Your task to perform on an android device: Open Youtube and go to the subscriptions tab Image 0: 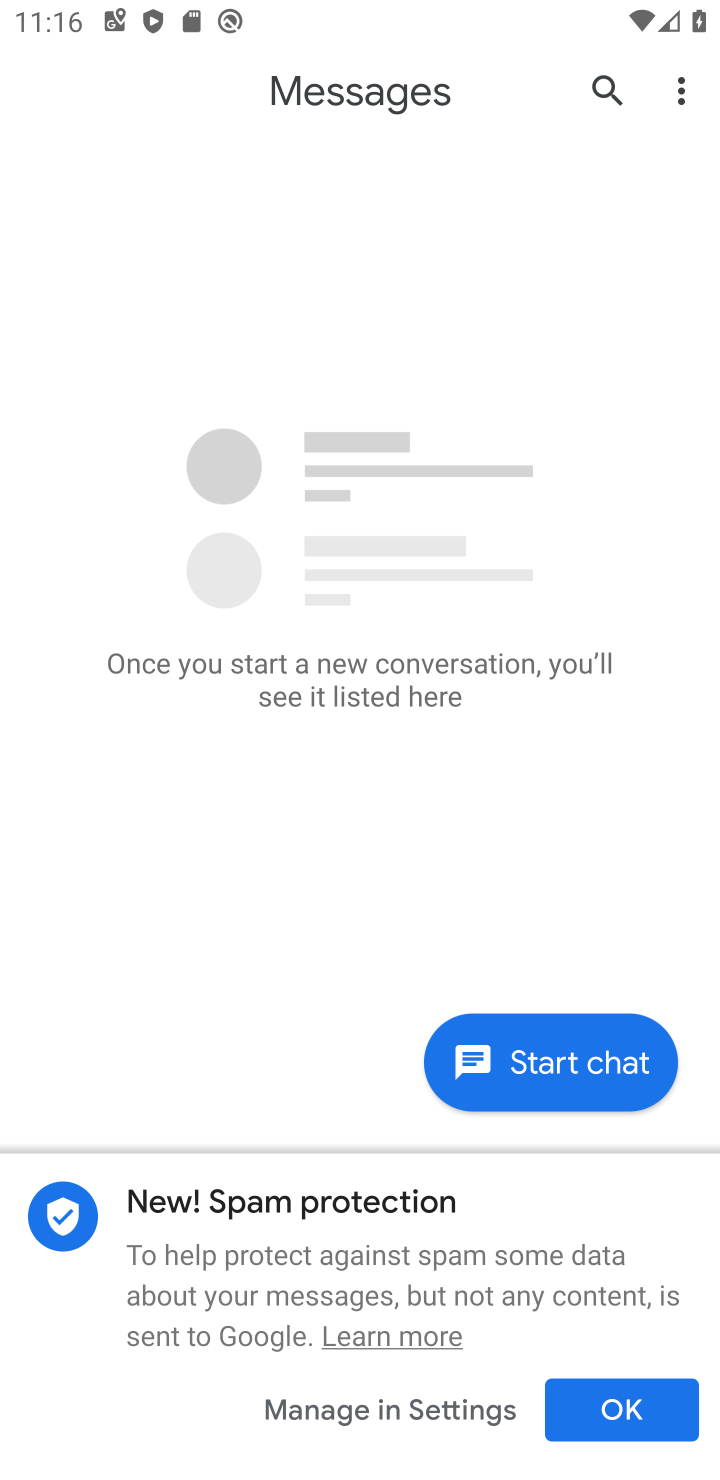
Step 0: press home button
Your task to perform on an android device: Open Youtube and go to the subscriptions tab Image 1: 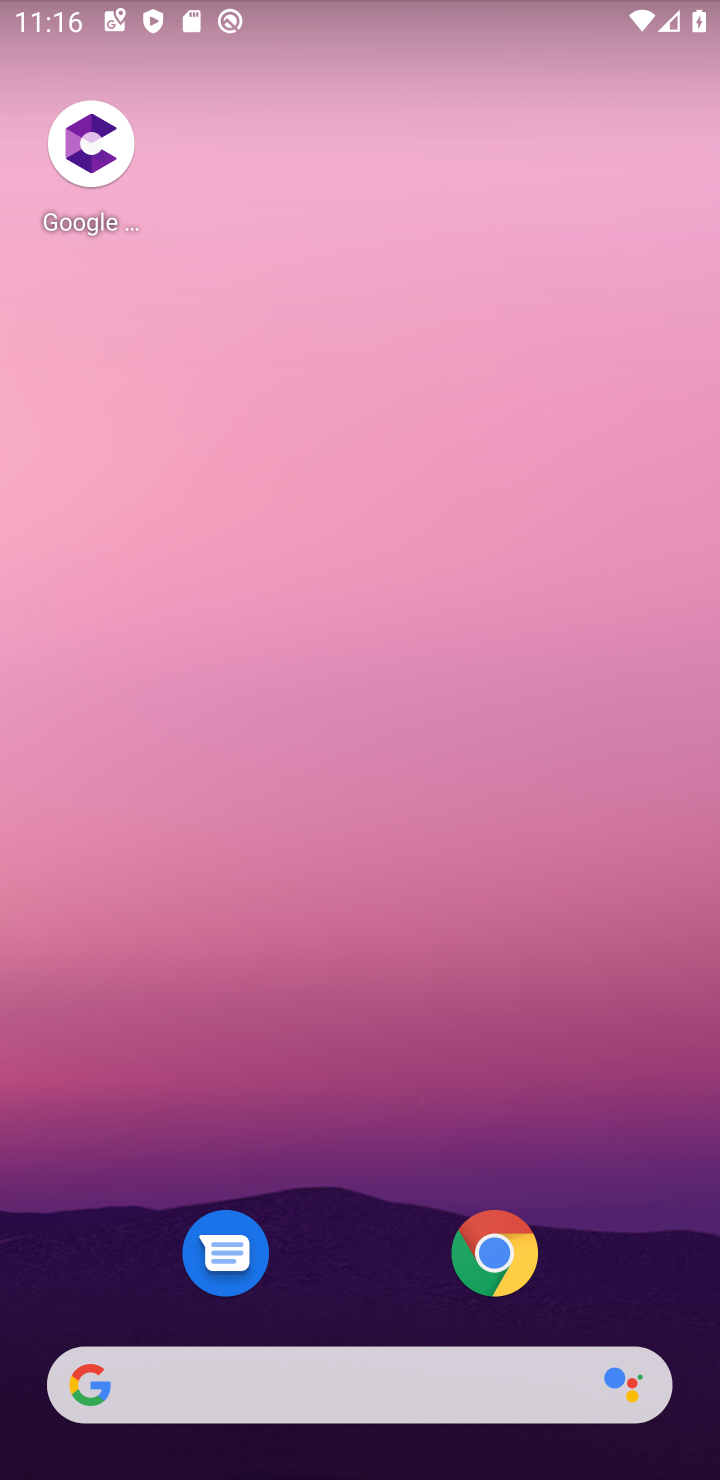
Step 1: drag from (297, 1323) to (372, 528)
Your task to perform on an android device: Open Youtube and go to the subscriptions tab Image 2: 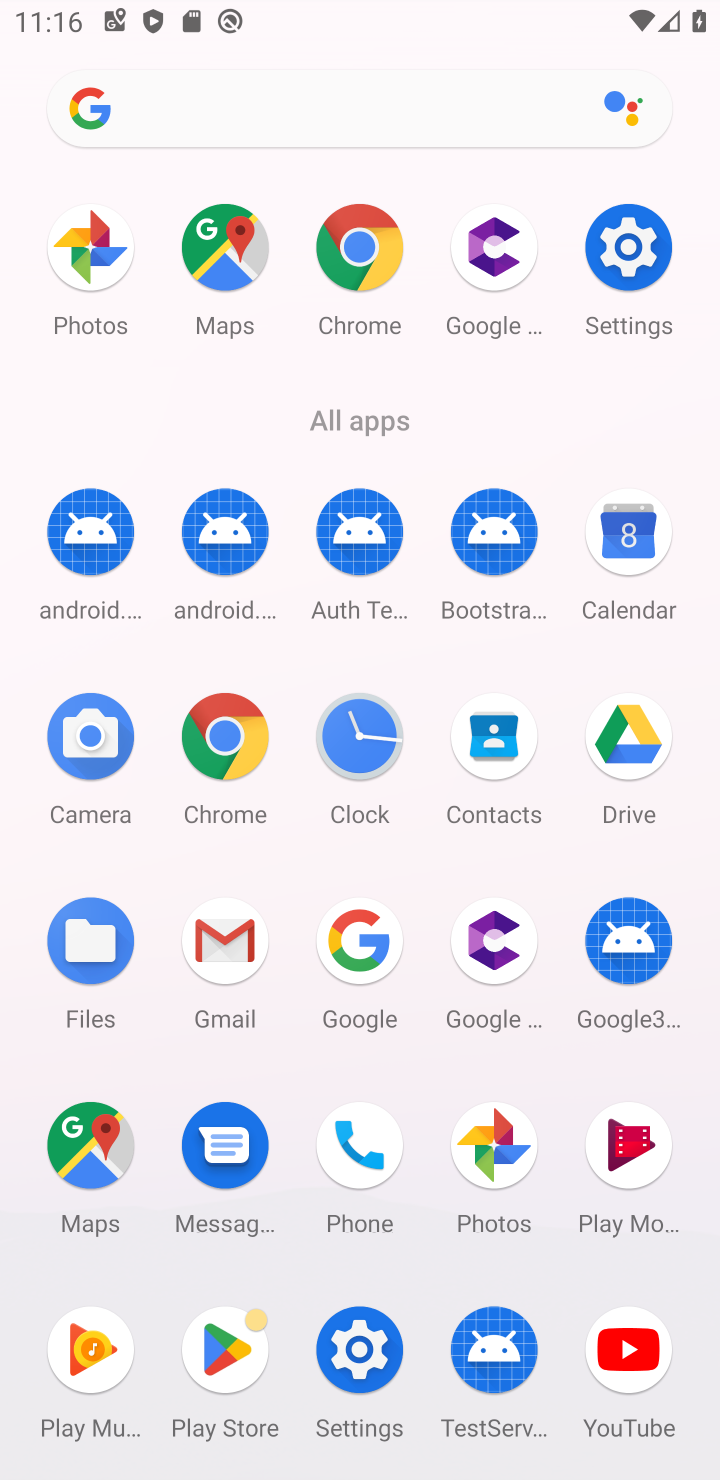
Step 2: click (634, 1339)
Your task to perform on an android device: Open Youtube and go to the subscriptions tab Image 3: 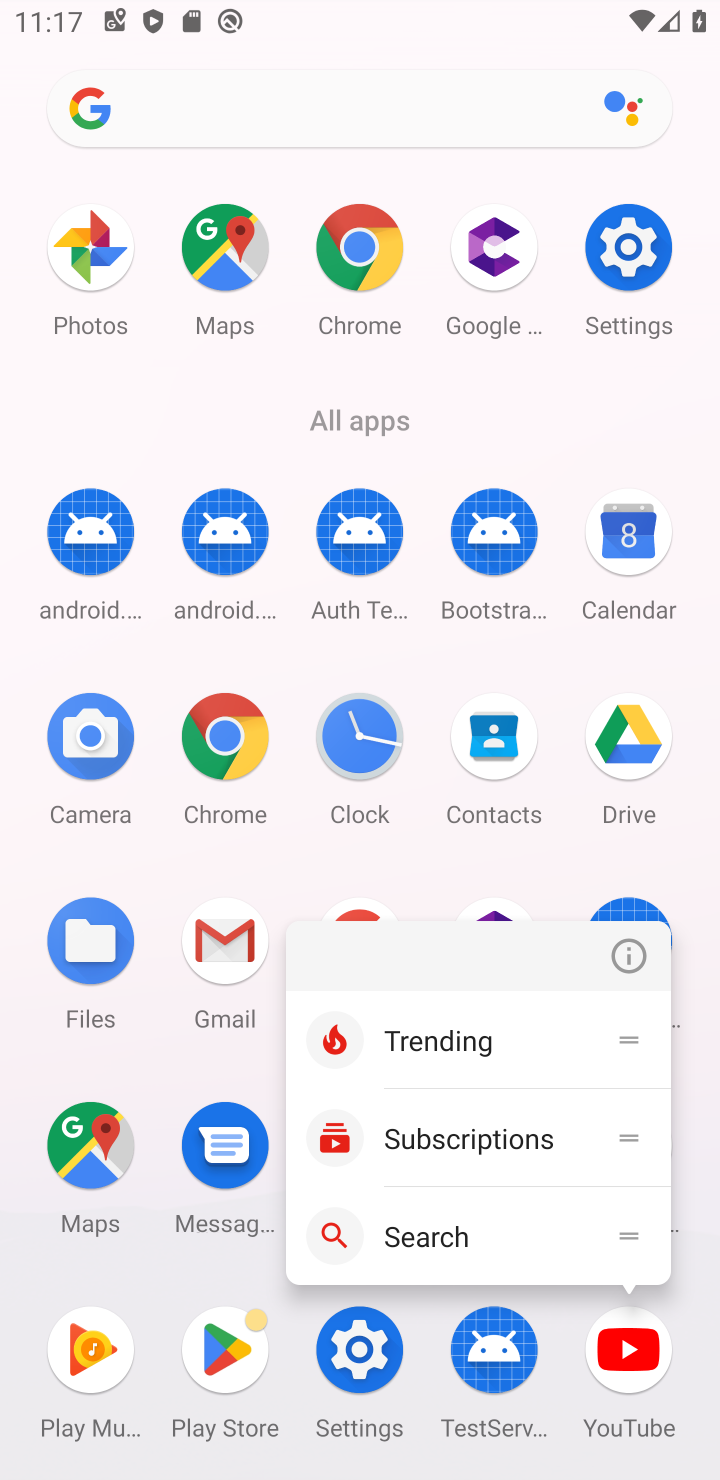
Step 3: click (656, 1362)
Your task to perform on an android device: Open Youtube and go to the subscriptions tab Image 4: 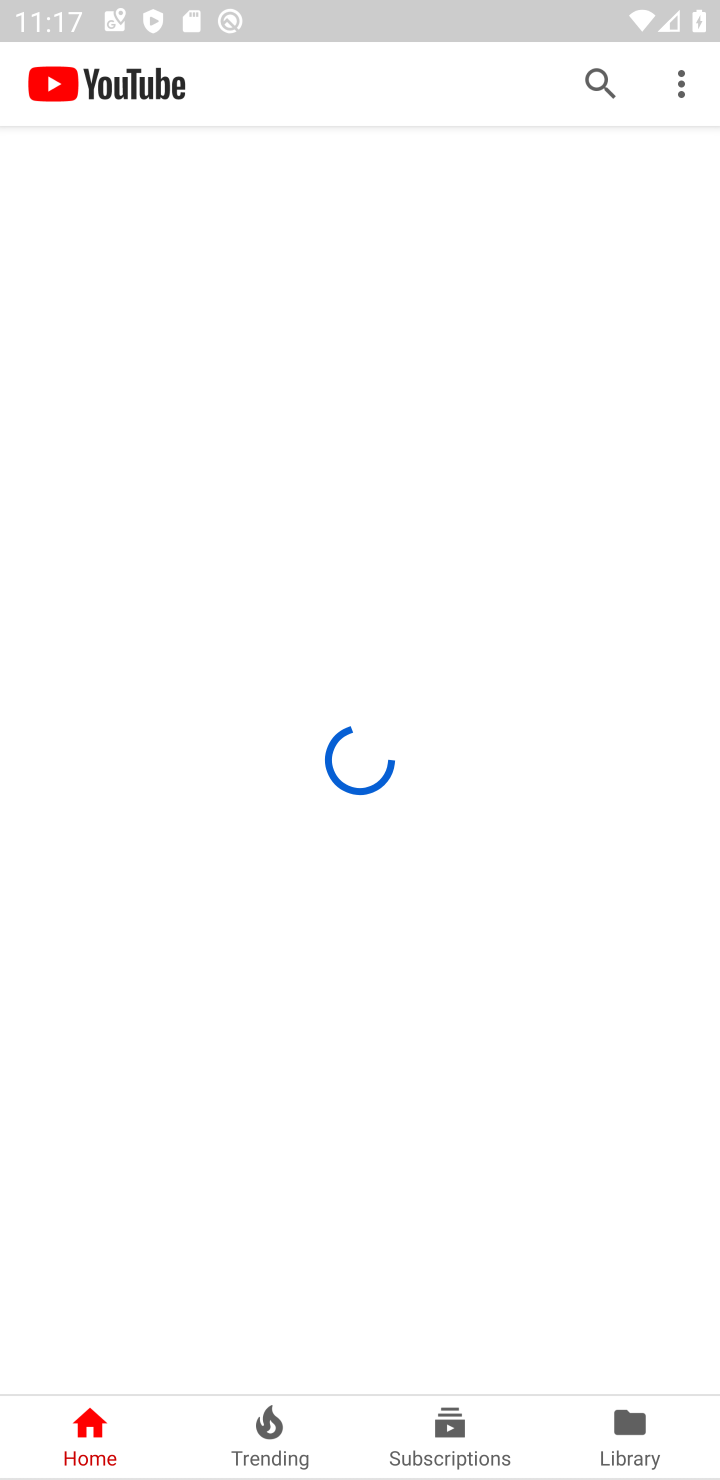
Step 4: click (427, 1461)
Your task to perform on an android device: Open Youtube and go to the subscriptions tab Image 5: 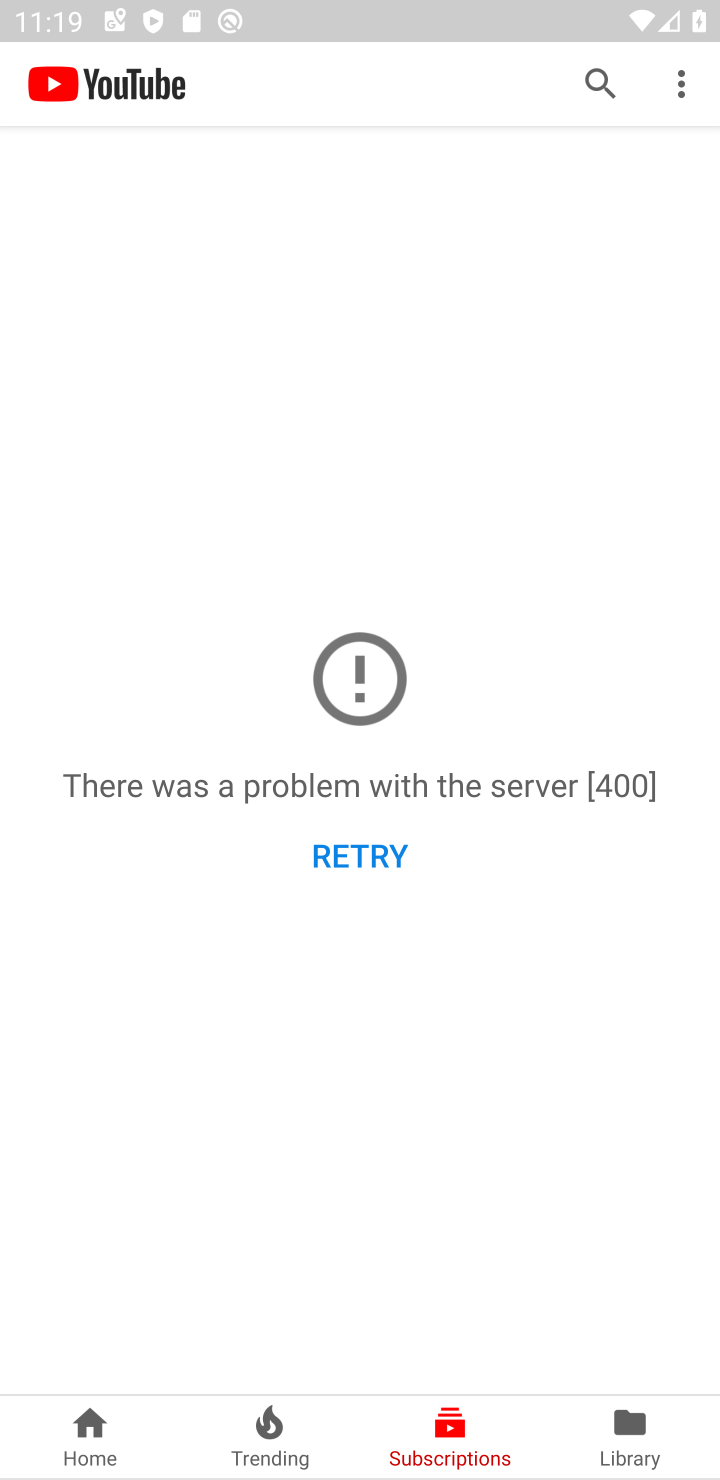
Step 5: task complete